Your task to perform on an android device: Open internet settings Image 0: 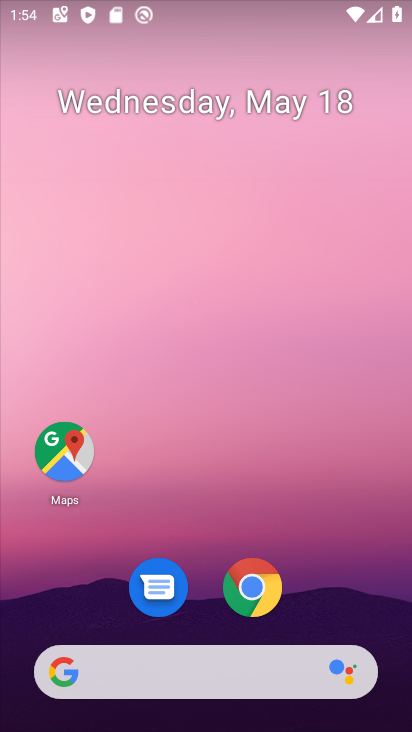
Step 0: drag from (333, 618) to (319, 4)
Your task to perform on an android device: Open internet settings Image 1: 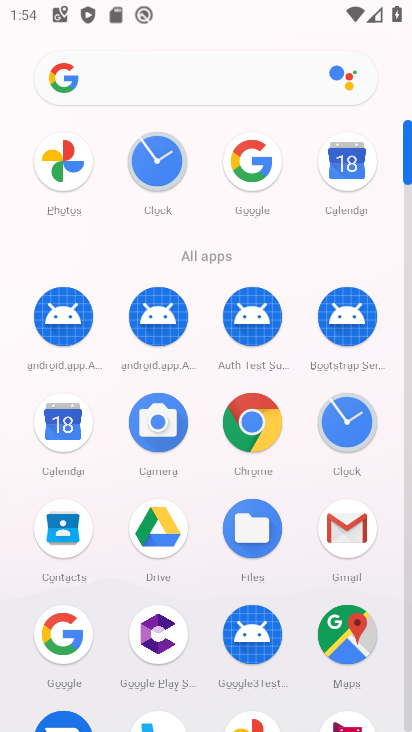
Step 1: click (406, 491)
Your task to perform on an android device: Open internet settings Image 2: 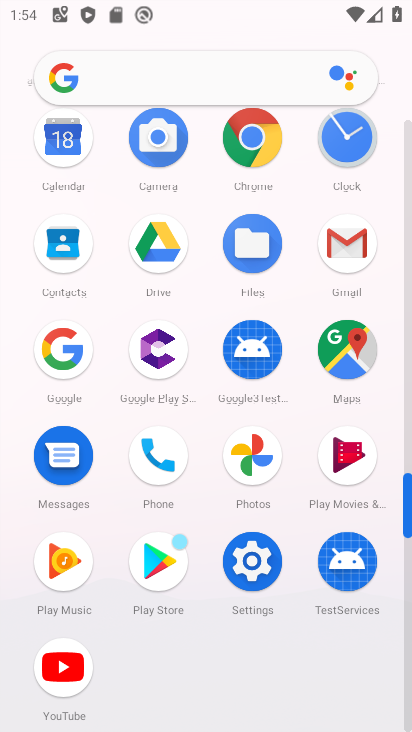
Step 2: click (252, 565)
Your task to perform on an android device: Open internet settings Image 3: 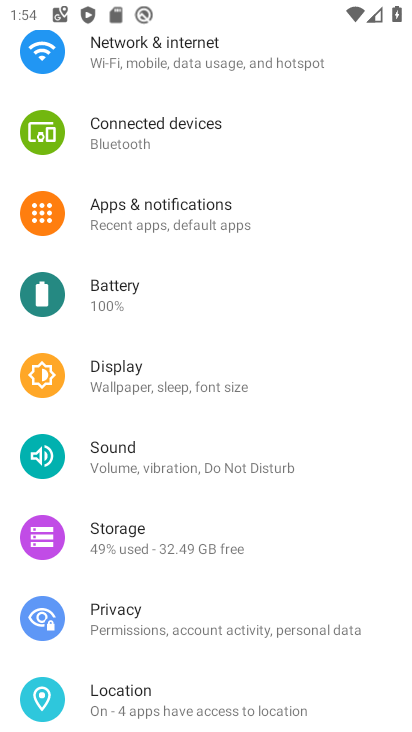
Step 3: click (194, 60)
Your task to perform on an android device: Open internet settings Image 4: 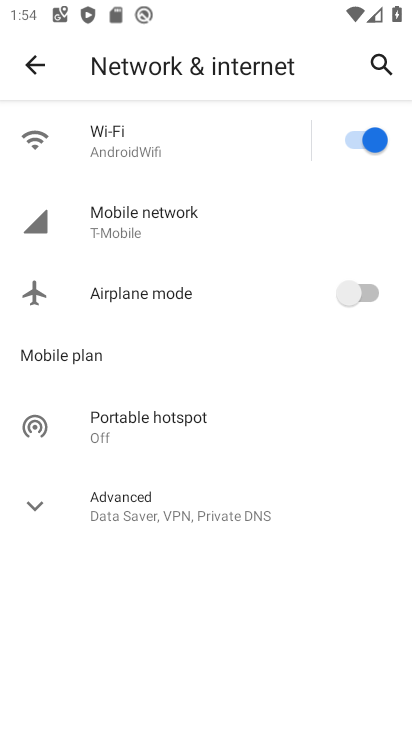
Step 4: task complete